Your task to perform on an android device: check out phone information Image 0: 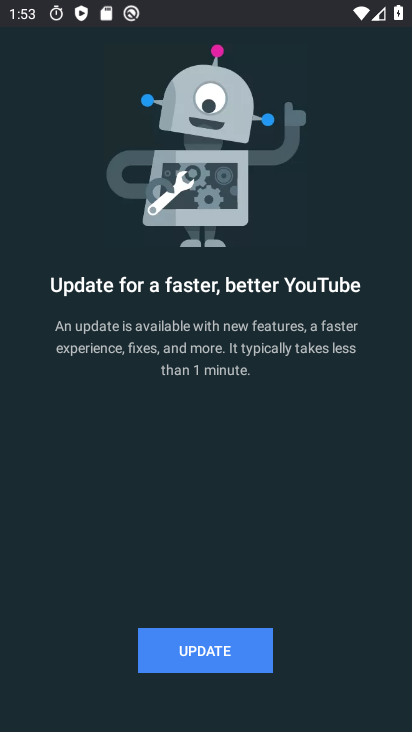
Step 0: press home button
Your task to perform on an android device: check out phone information Image 1: 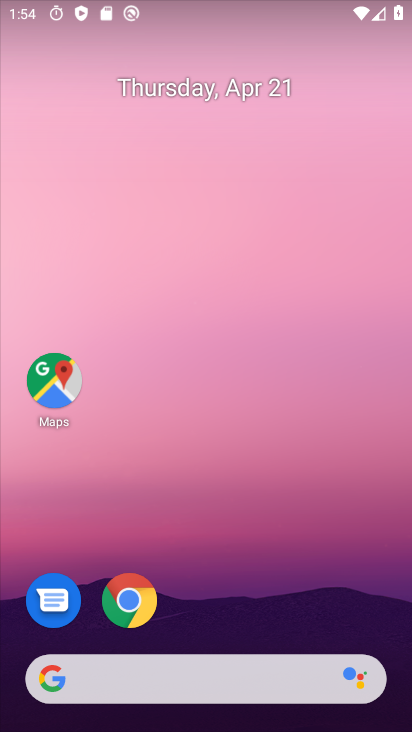
Step 1: drag from (218, 606) to (291, 37)
Your task to perform on an android device: check out phone information Image 2: 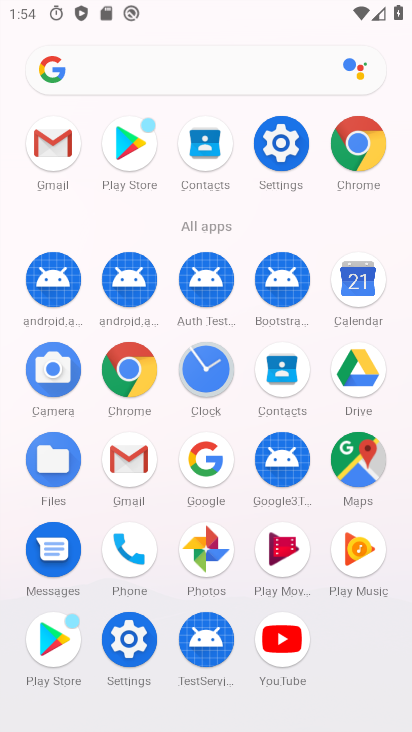
Step 2: click (282, 138)
Your task to perform on an android device: check out phone information Image 3: 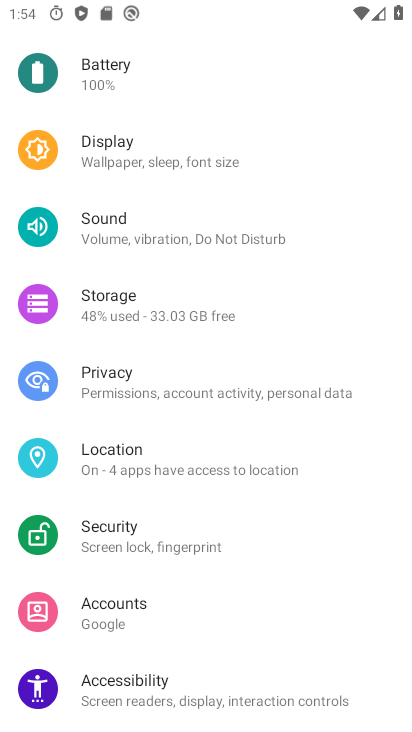
Step 3: drag from (187, 640) to (311, 53)
Your task to perform on an android device: check out phone information Image 4: 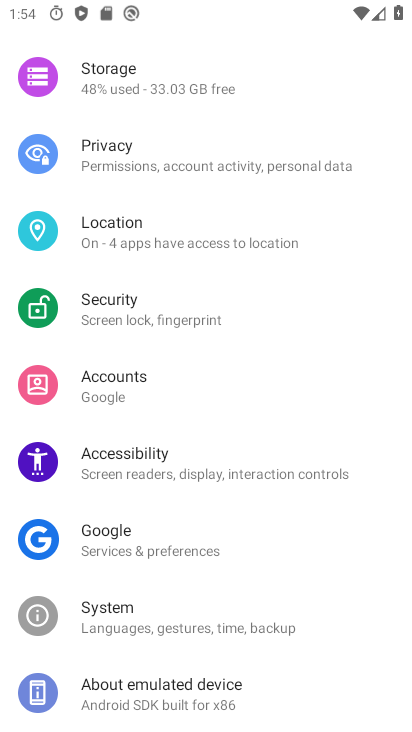
Step 4: click (162, 692)
Your task to perform on an android device: check out phone information Image 5: 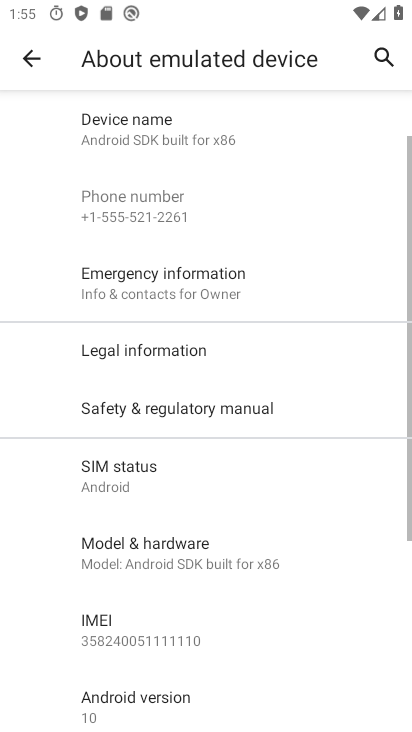
Step 5: task complete